Your task to perform on an android device: install app "Expedia: Hotels, Flights & Car" Image 0: 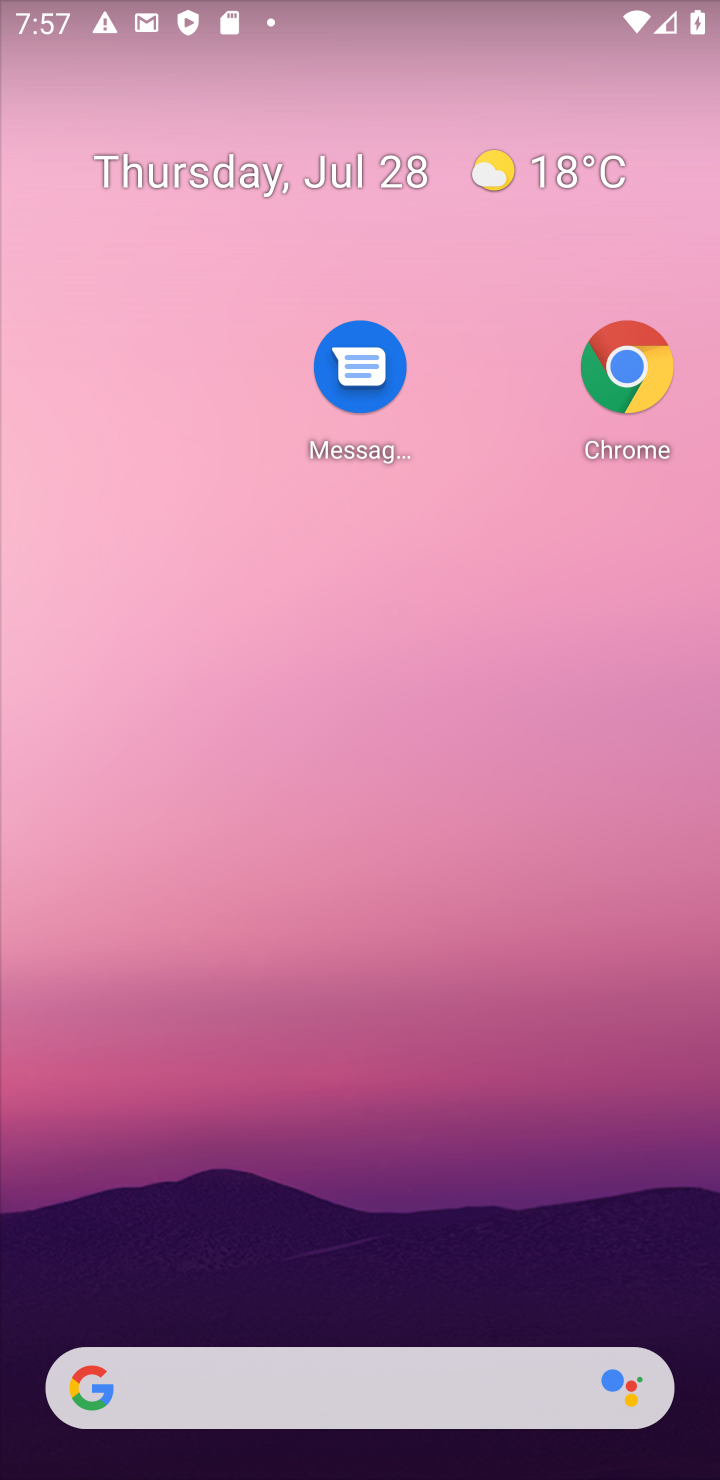
Step 0: drag from (137, 1443) to (208, 117)
Your task to perform on an android device: install app "Expedia: Hotels, Flights & Car" Image 1: 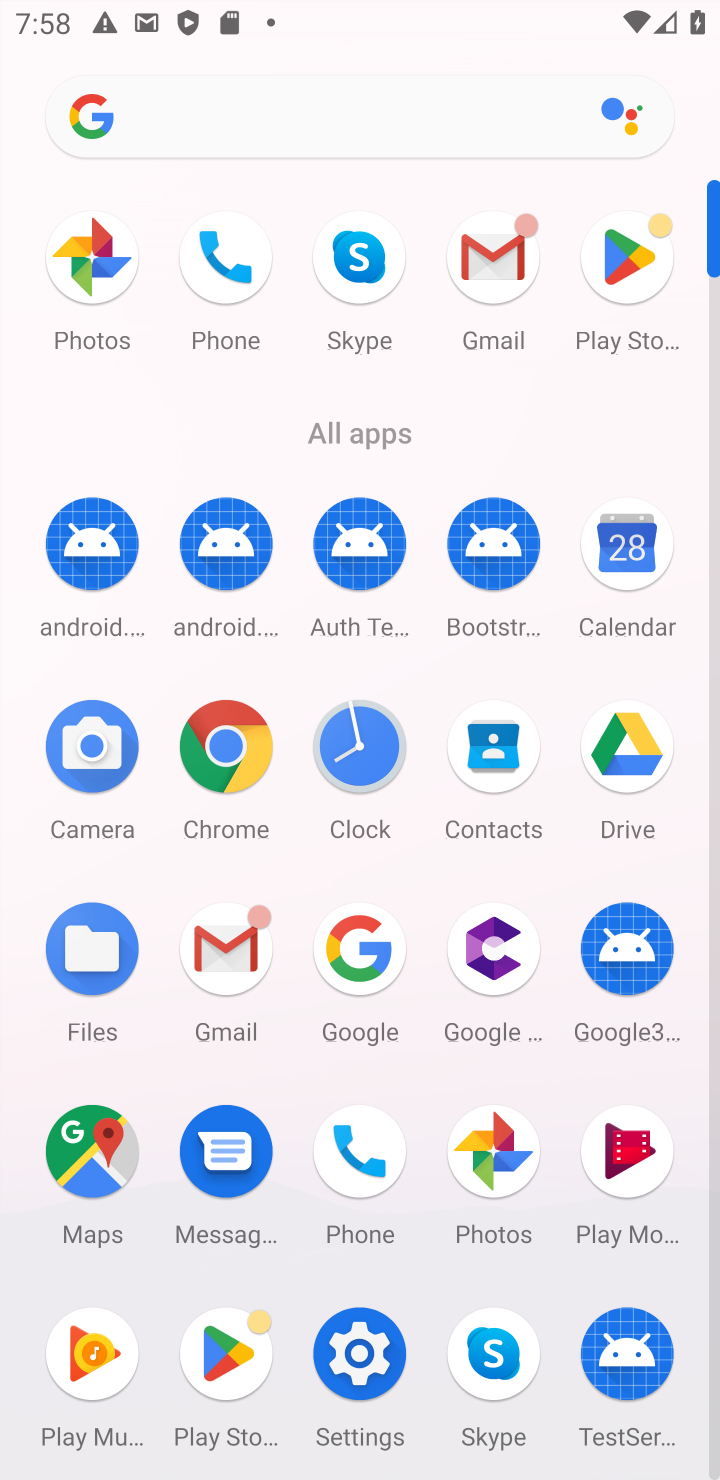
Step 1: click (637, 279)
Your task to perform on an android device: install app "Expedia: Hotels, Flights & Car" Image 2: 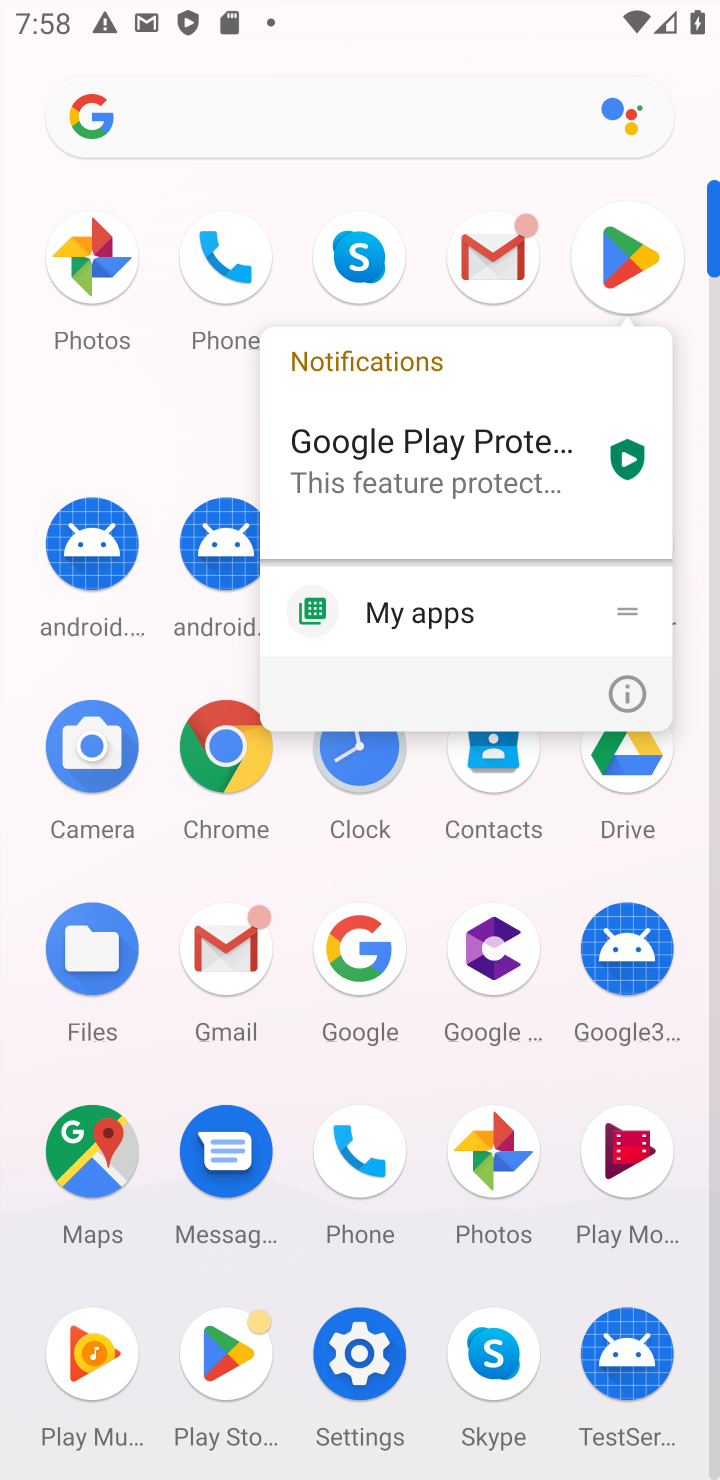
Step 2: click (637, 279)
Your task to perform on an android device: install app "Expedia: Hotels, Flights & Car" Image 3: 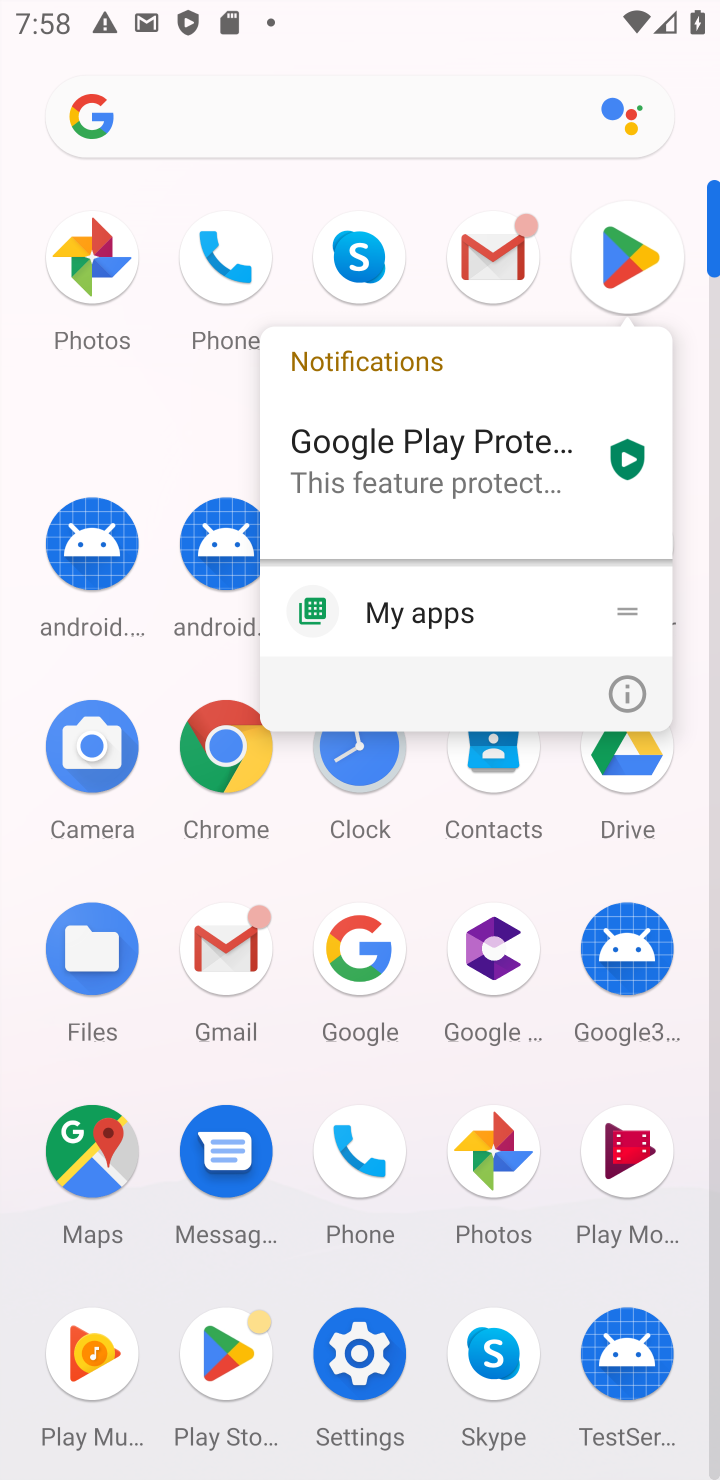
Step 3: click (637, 279)
Your task to perform on an android device: install app "Expedia: Hotels, Flights & Car" Image 4: 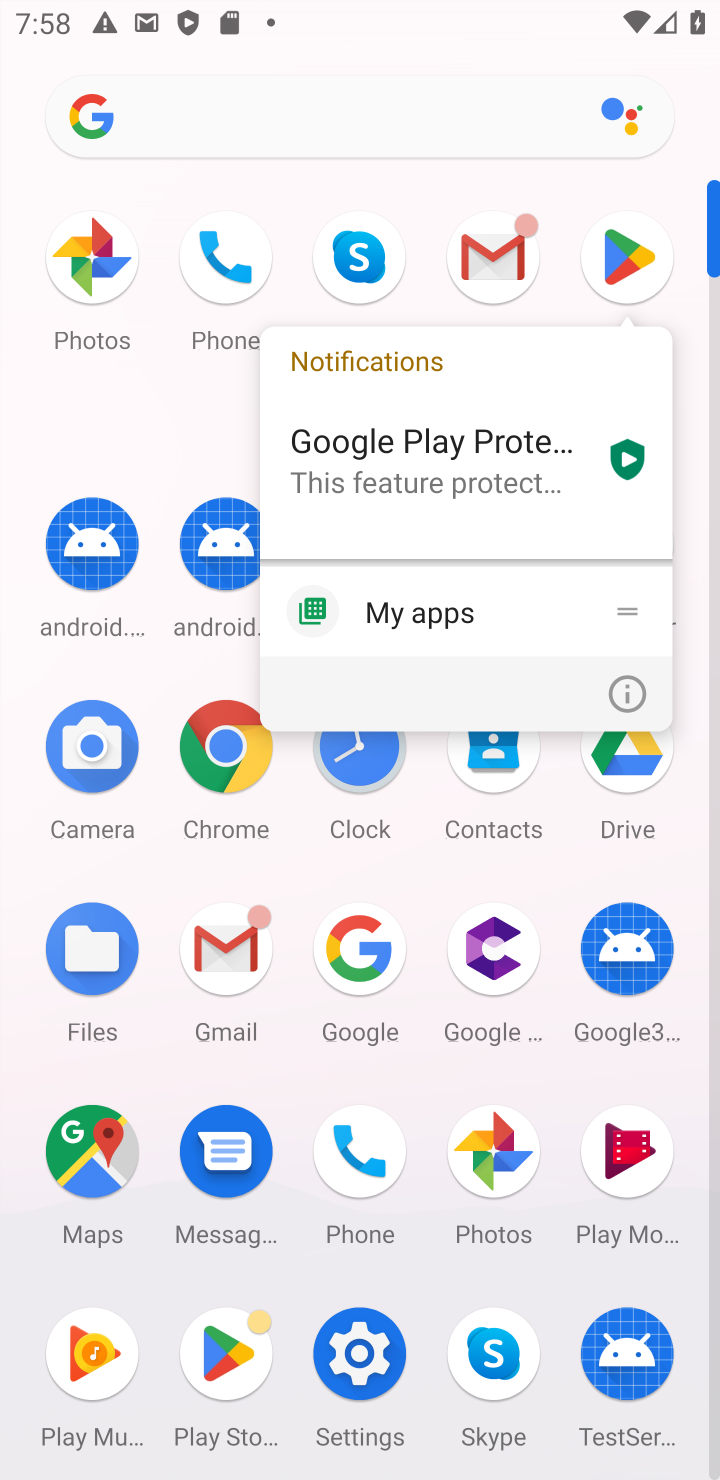
Step 4: click (637, 279)
Your task to perform on an android device: install app "Expedia: Hotels, Flights & Car" Image 5: 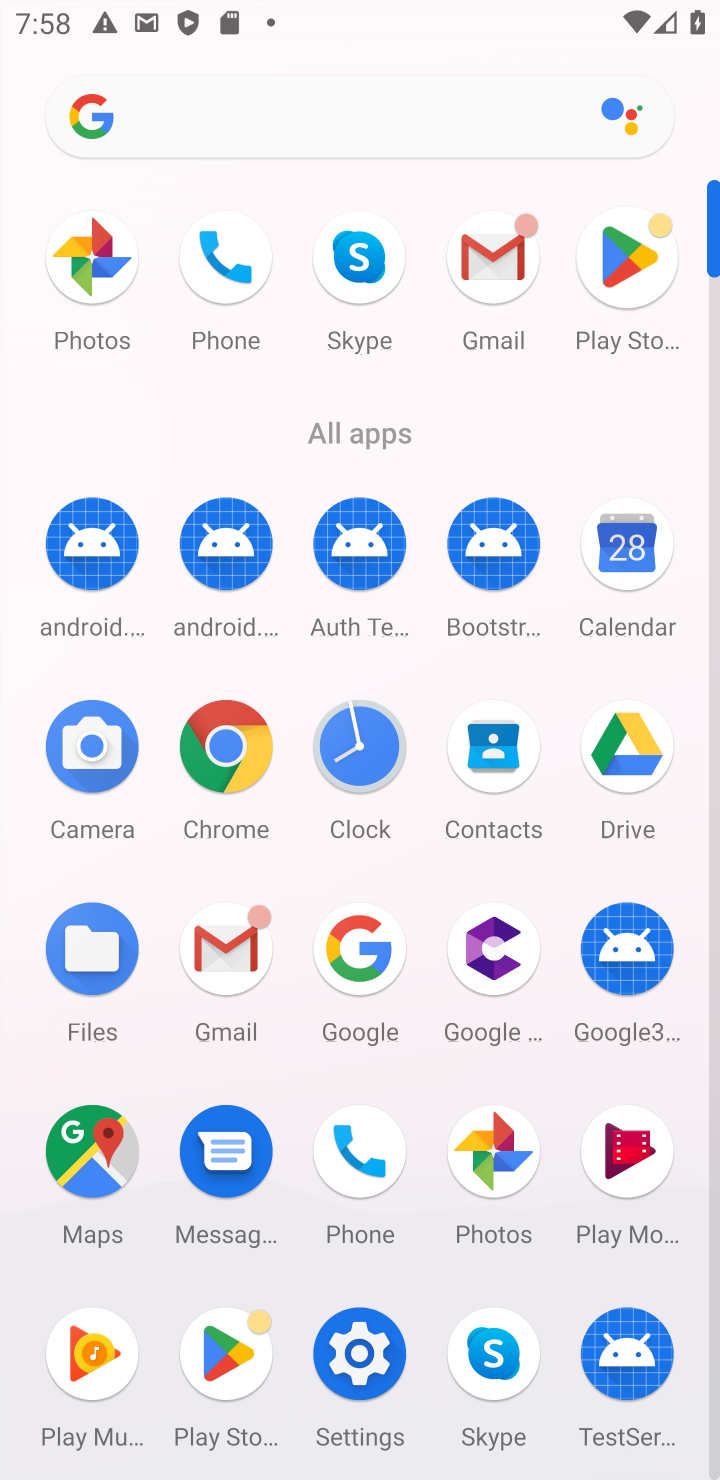
Step 5: click (631, 247)
Your task to perform on an android device: install app "Expedia: Hotels, Flights & Car" Image 6: 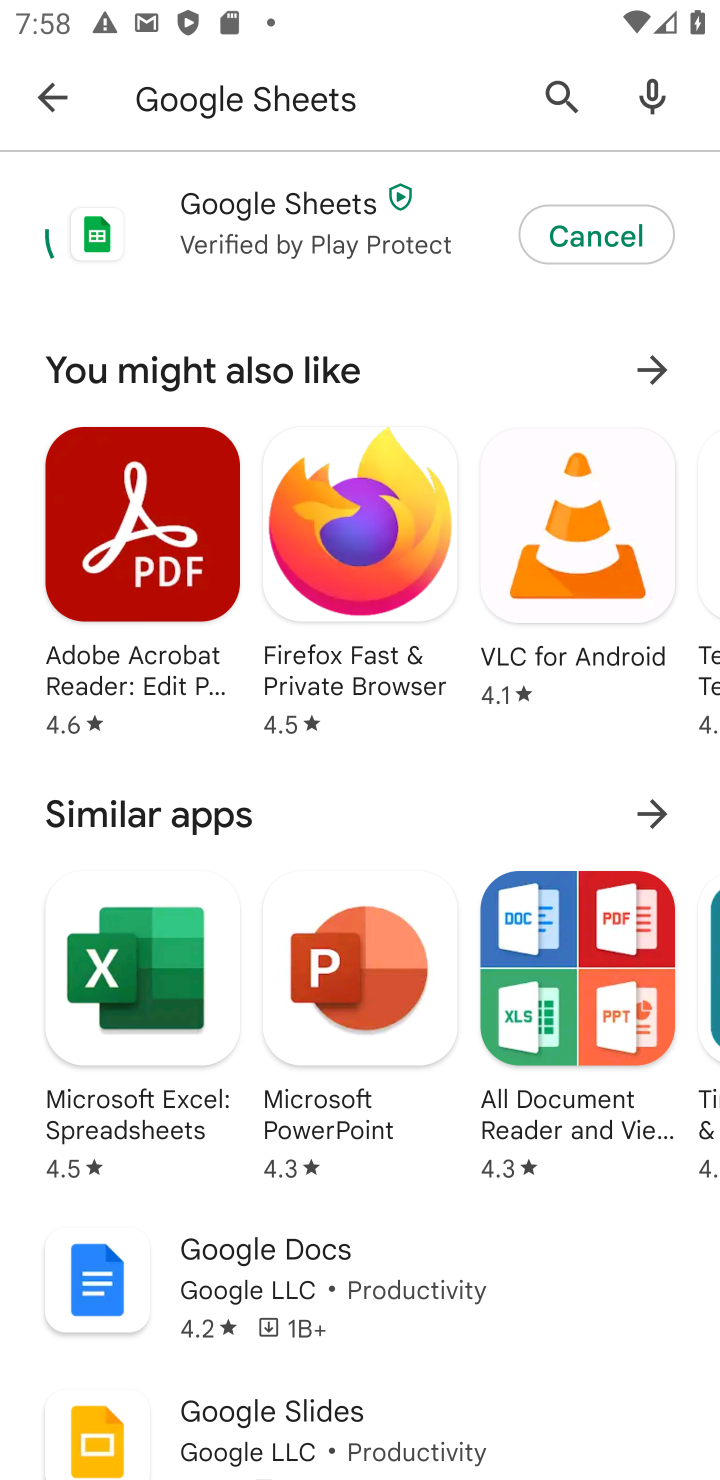
Step 6: click (561, 92)
Your task to perform on an android device: install app "Expedia: Hotels, Flights & Car" Image 7: 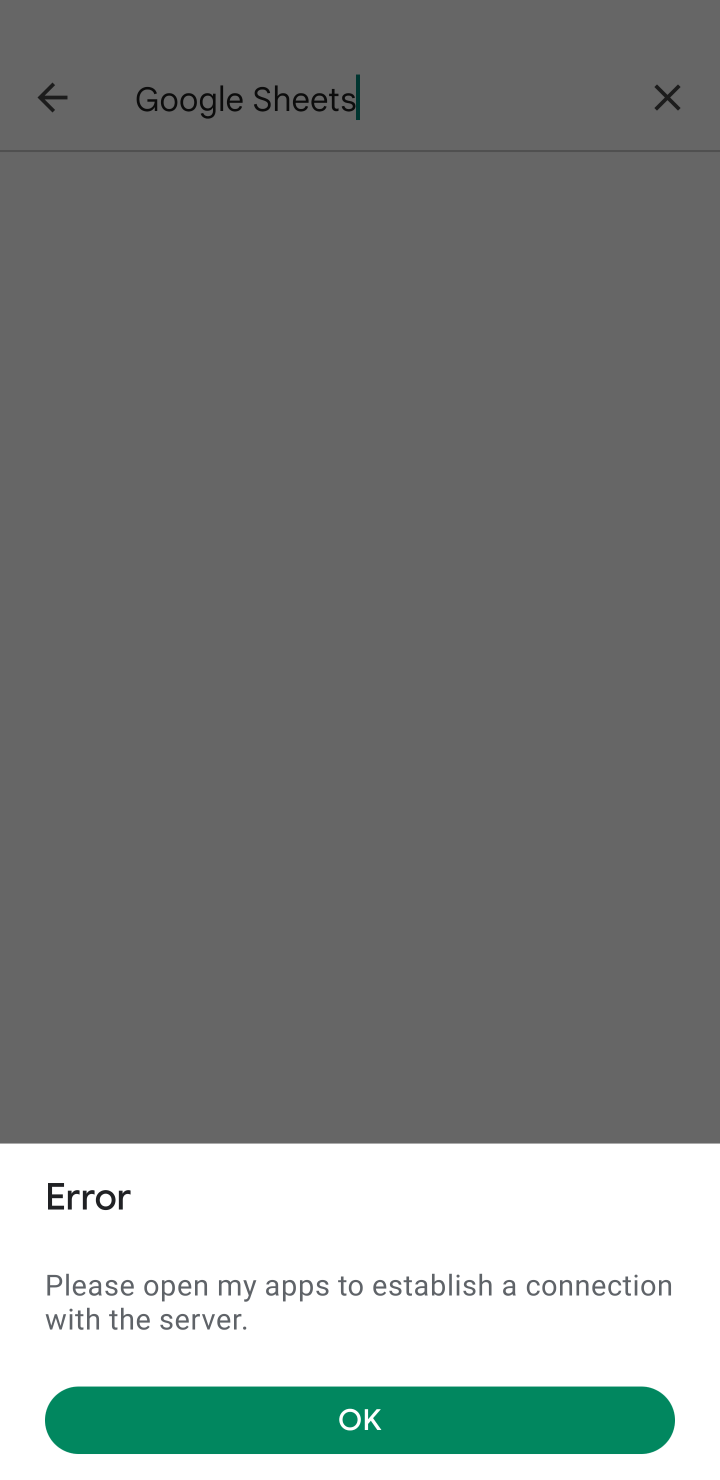
Step 7: click (670, 89)
Your task to perform on an android device: install app "Expedia: Hotels, Flights & Car" Image 8: 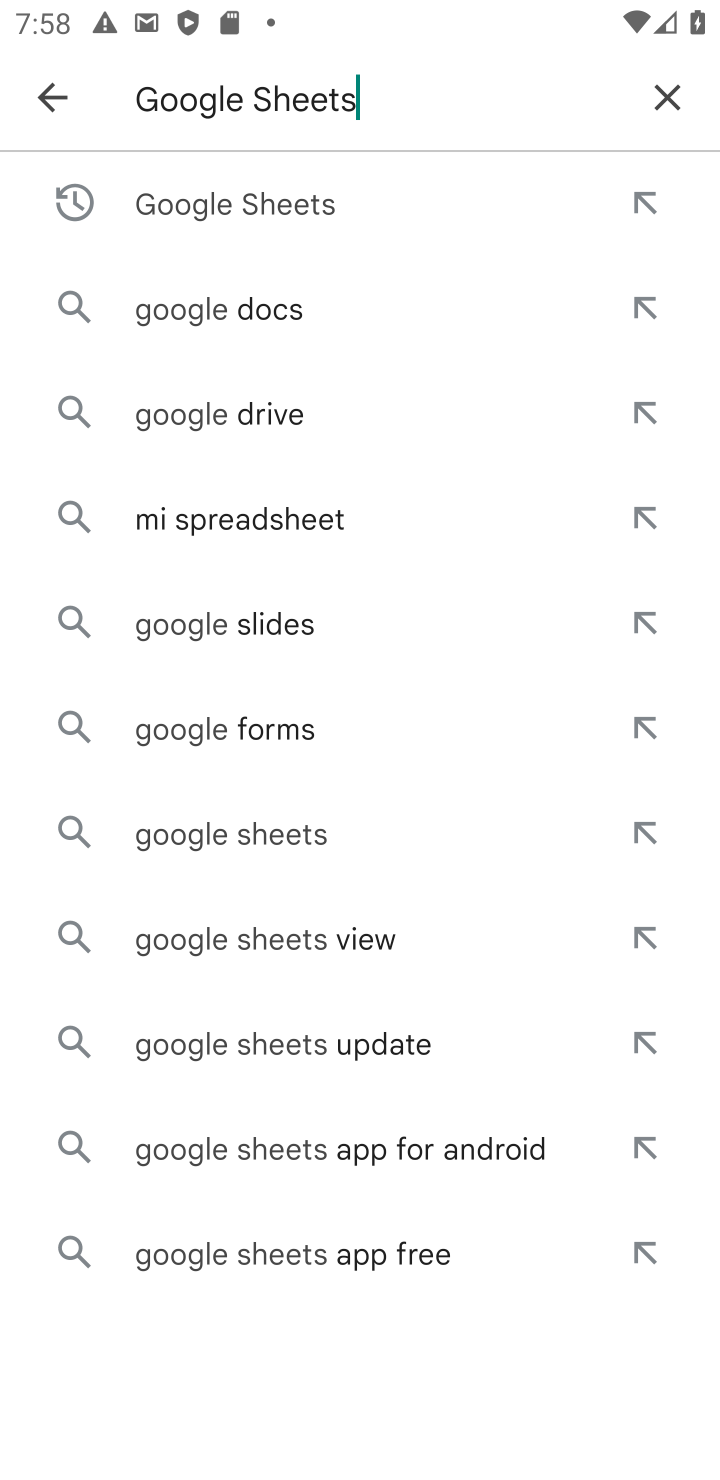
Step 8: click (675, 96)
Your task to perform on an android device: install app "Expedia: Hotels, Flights & Car" Image 9: 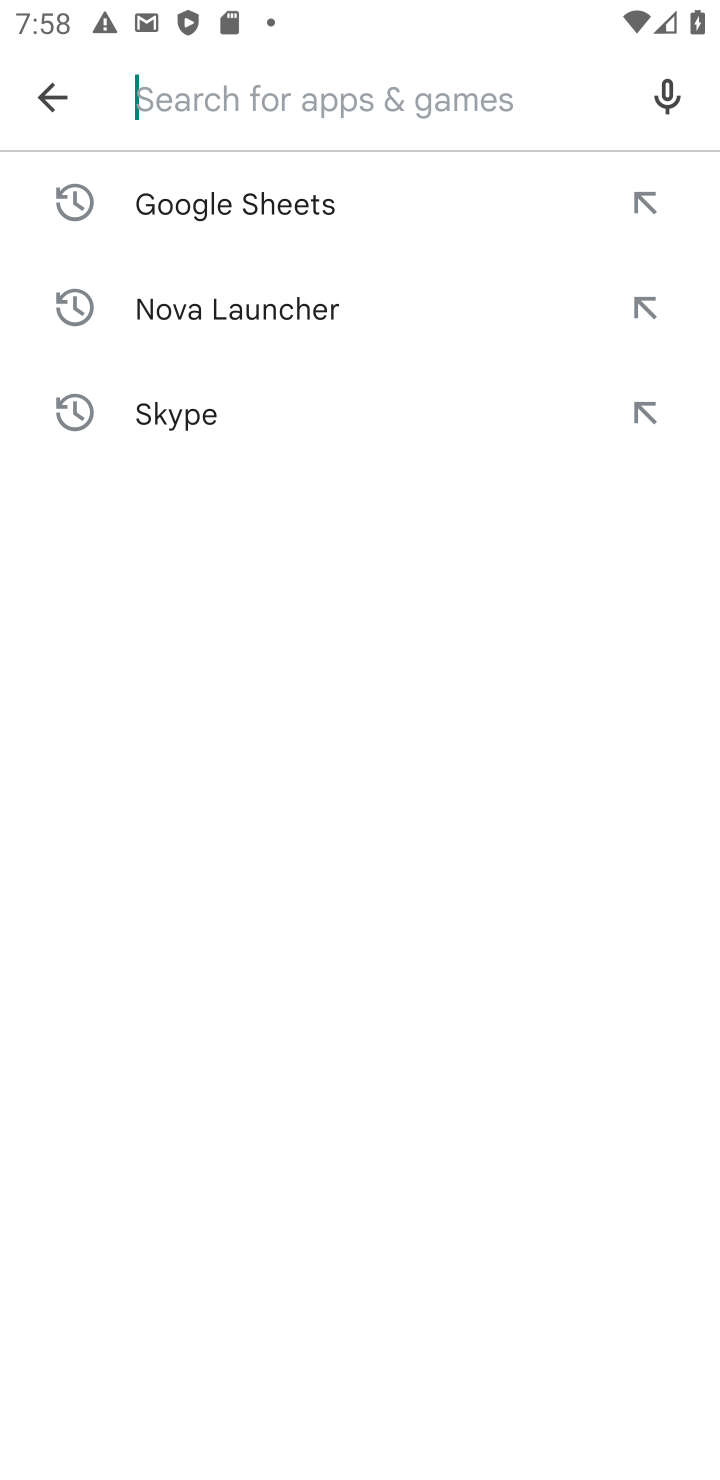
Step 9: type "Expedia: Hotels, Flights & Car"
Your task to perform on an android device: install app "Expedia: Hotels, Flights & Car" Image 10: 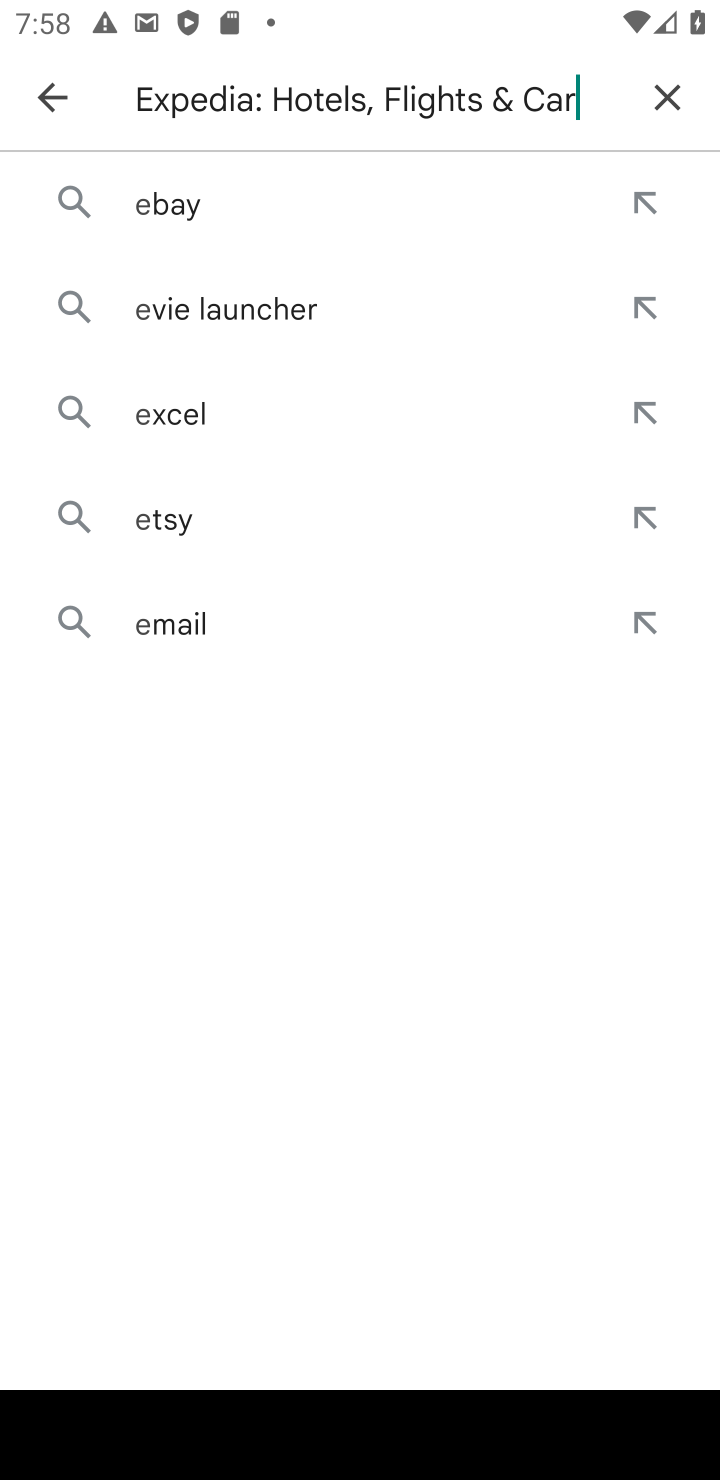
Step 10: press enter
Your task to perform on an android device: install app "Expedia: Hotels, Flights & Car" Image 11: 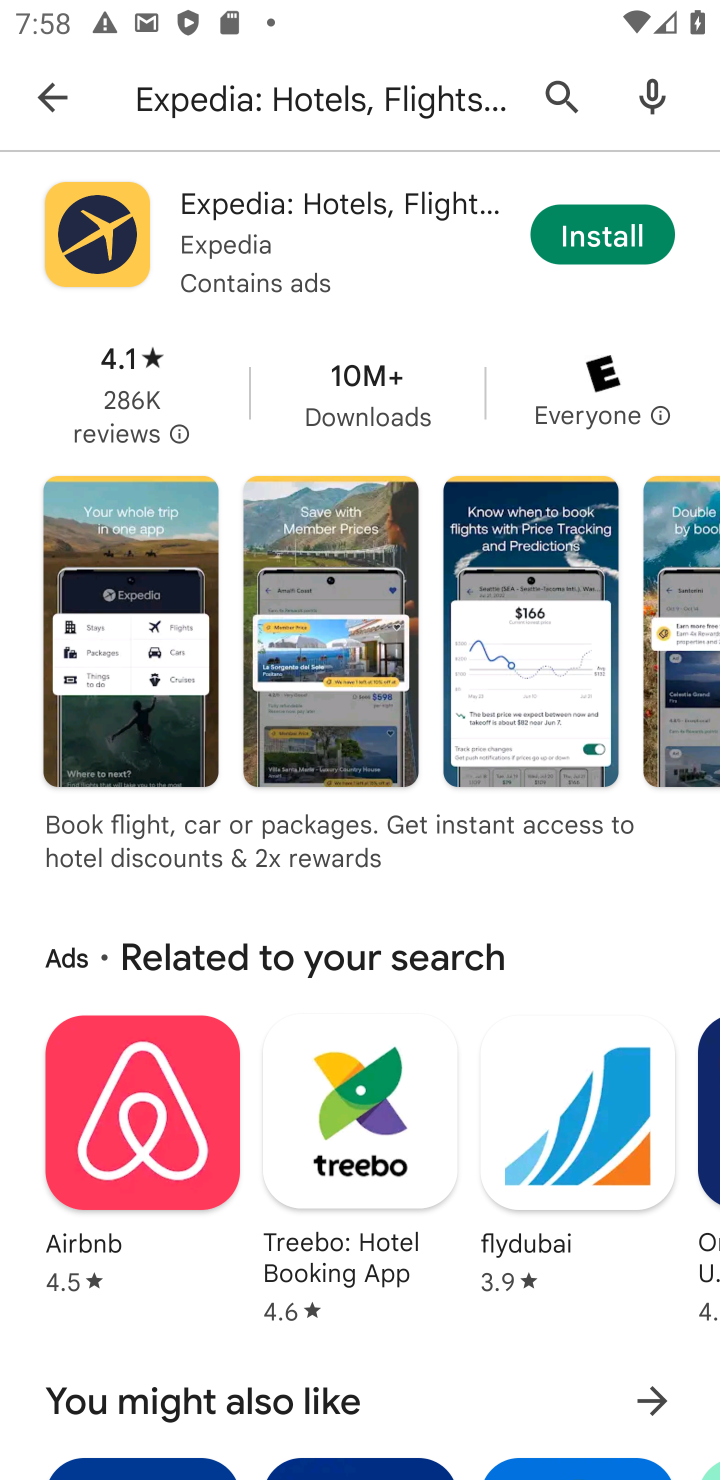
Step 11: click (605, 223)
Your task to perform on an android device: install app "Expedia: Hotels, Flights & Car" Image 12: 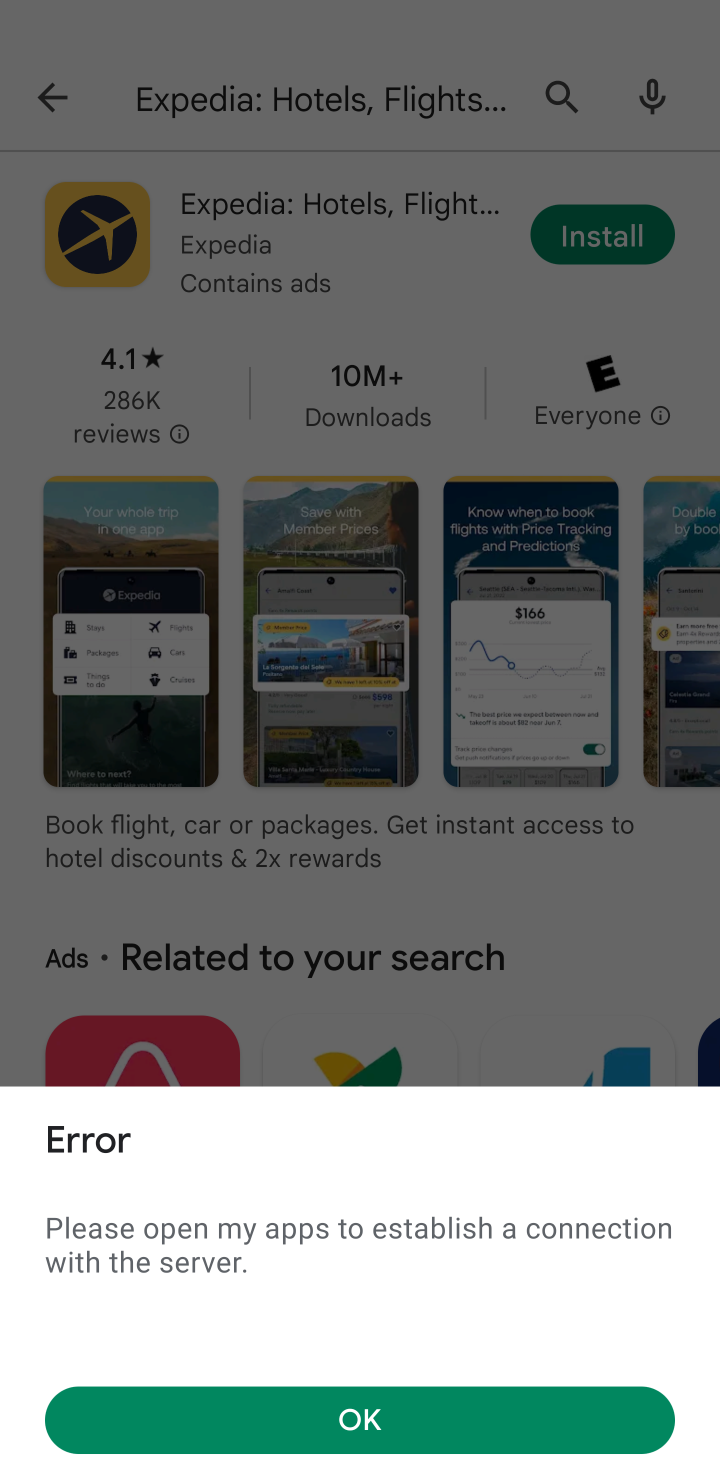
Step 12: click (370, 1429)
Your task to perform on an android device: install app "Expedia: Hotels, Flights & Car" Image 13: 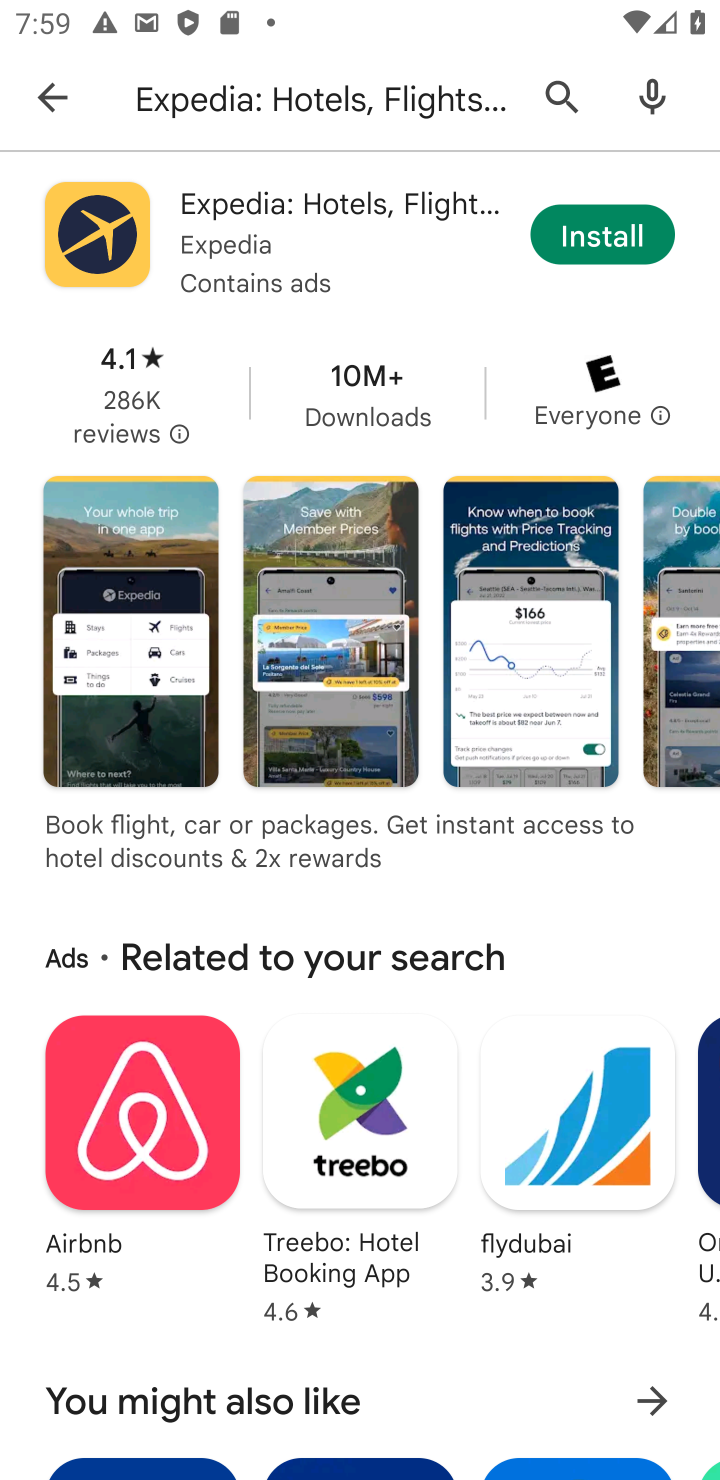
Step 13: click (591, 242)
Your task to perform on an android device: install app "Expedia: Hotels, Flights & Car" Image 14: 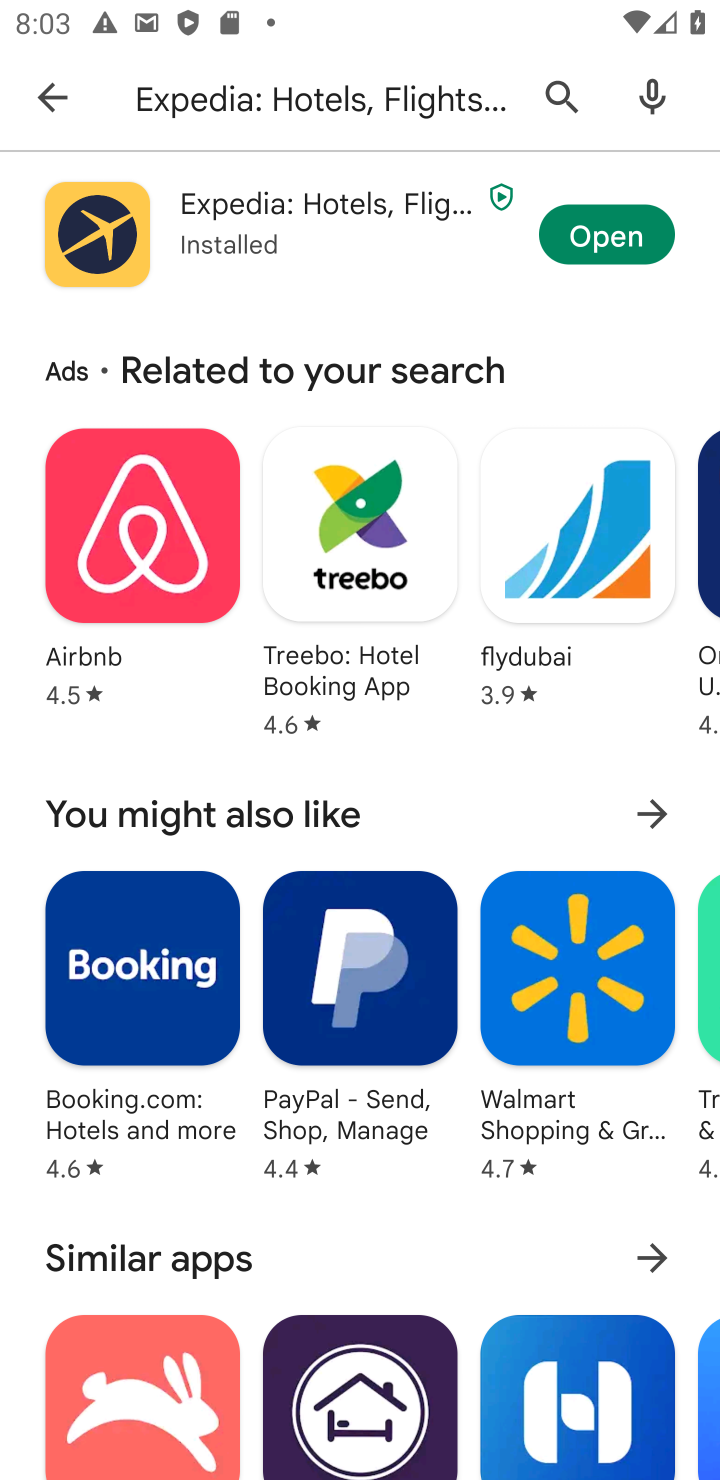
Step 14: task complete